Your task to perform on an android device: turn off airplane mode Image 0: 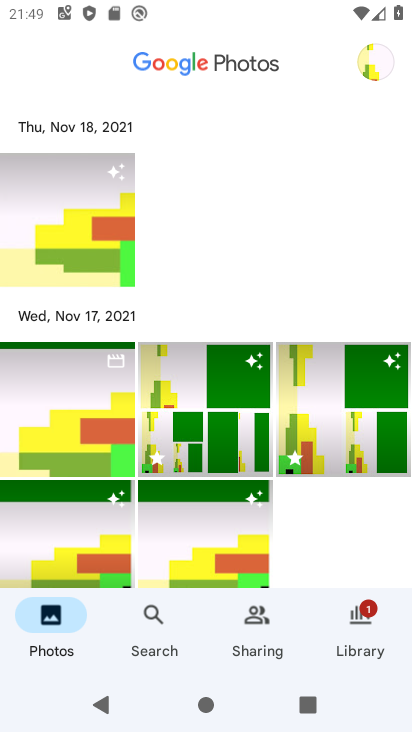
Step 0: drag from (309, 0) to (311, 500)
Your task to perform on an android device: turn off airplane mode Image 1: 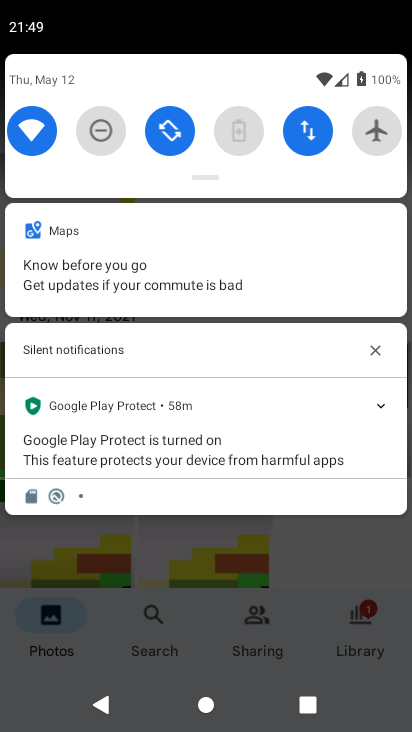
Step 1: task complete